Your task to perform on an android device: turn notification dots off Image 0: 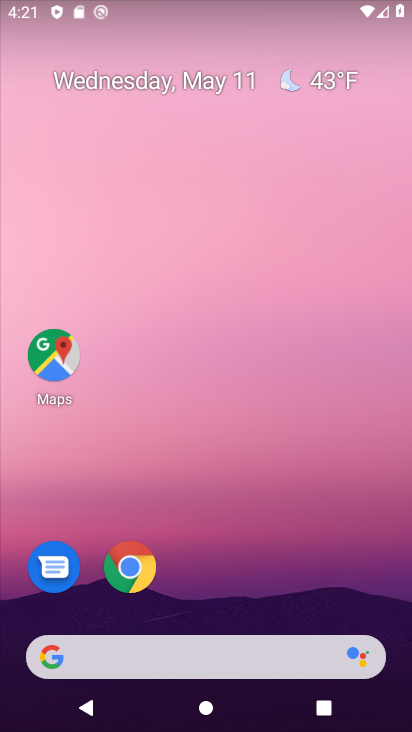
Step 0: press home button
Your task to perform on an android device: turn notification dots off Image 1: 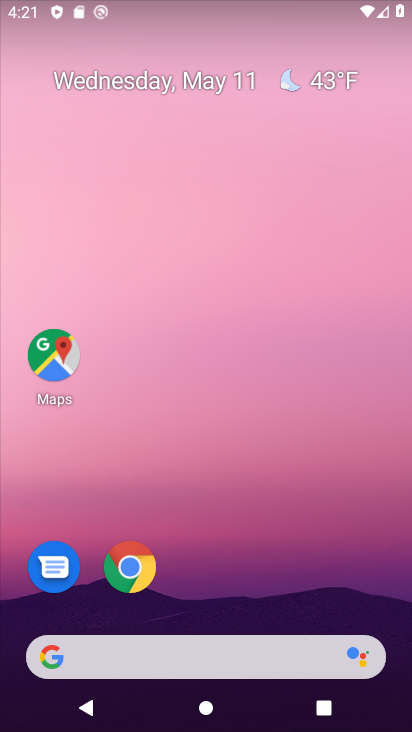
Step 1: drag from (233, 627) to (247, 0)
Your task to perform on an android device: turn notification dots off Image 2: 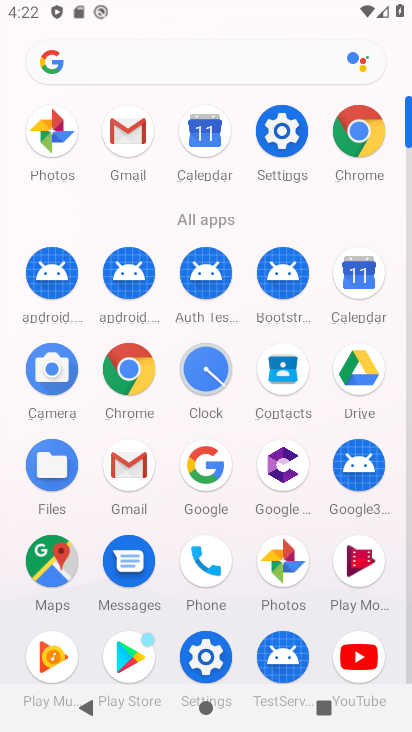
Step 2: click (280, 142)
Your task to perform on an android device: turn notification dots off Image 3: 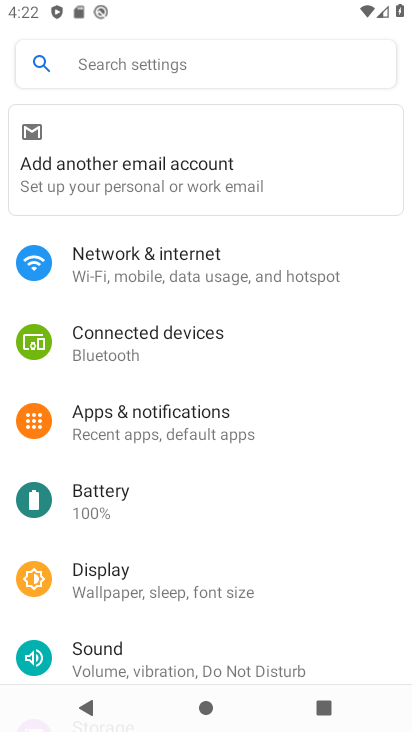
Step 3: click (175, 415)
Your task to perform on an android device: turn notification dots off Image 4: 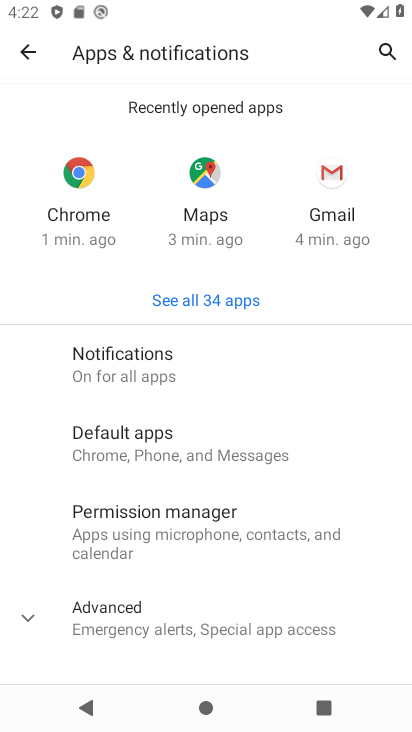
Step 4: click (216, 369)
Your task to perform on an android device: turn notification dots off Image 5: 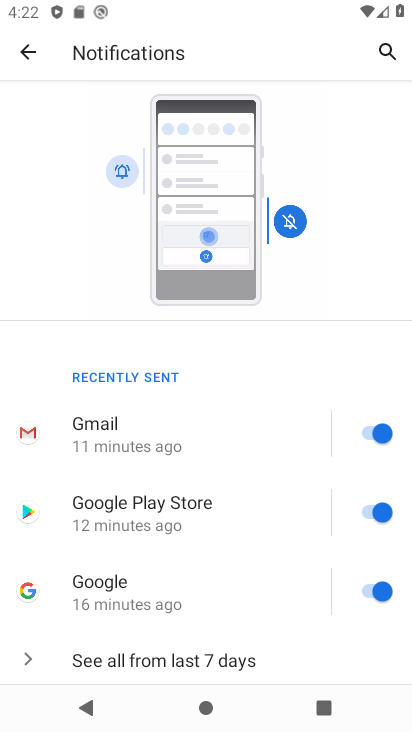
Step 5: drag from (257, 325) to (253, 42)
Your task to perform on an android device: turn notification dots off Image 6: 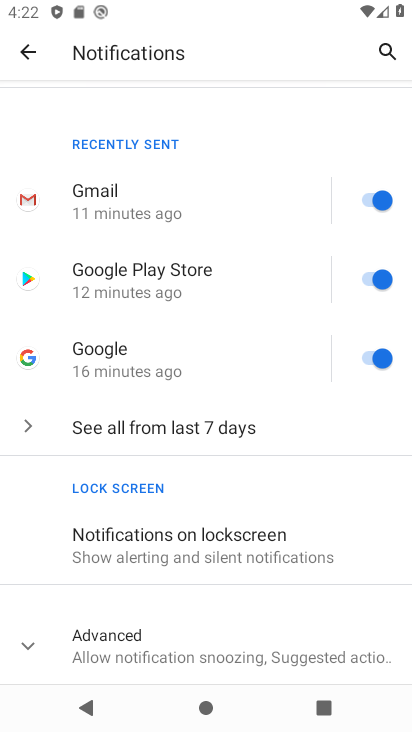
Step 6: click (237, 553)
Your task to perform on an android device: turn notification dots off Image 7: 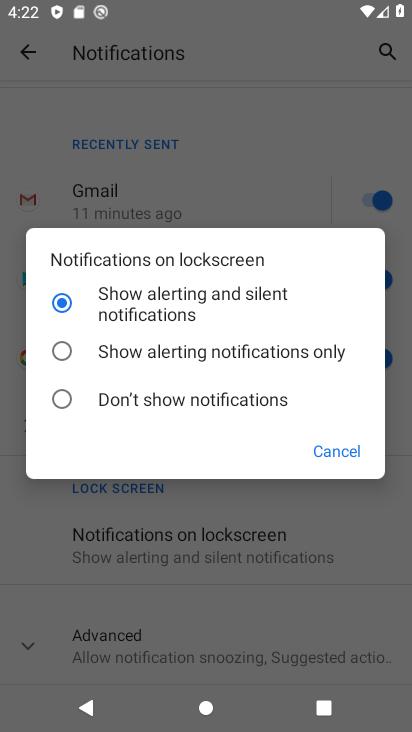
Step 7: click (316, 447)
Your task to perform on an android device: turn notification dots off Image 8: 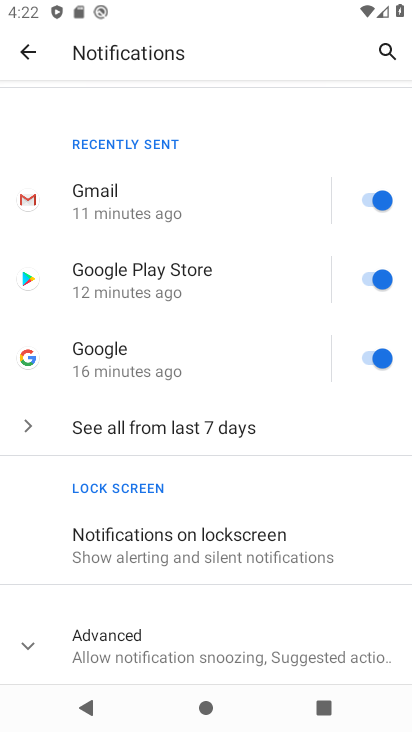
Step 8: click (199, 643)
Your task to perform on an android device: turn notification dots off Image 9: 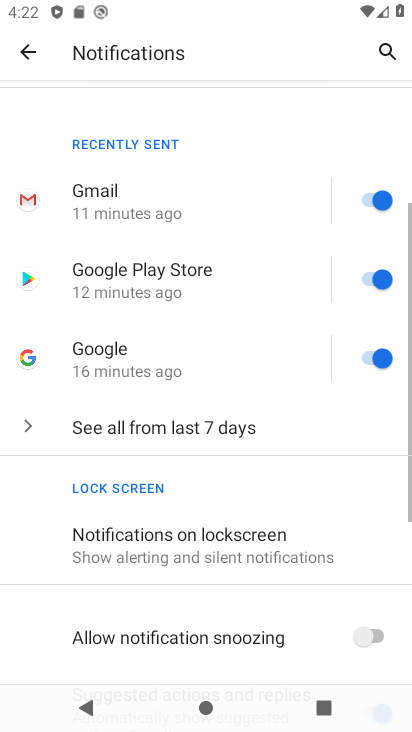
Step 9: drag from (238, 564) to (331, 39)
Your task to perform on an android device: turn notification dots off Image 10: 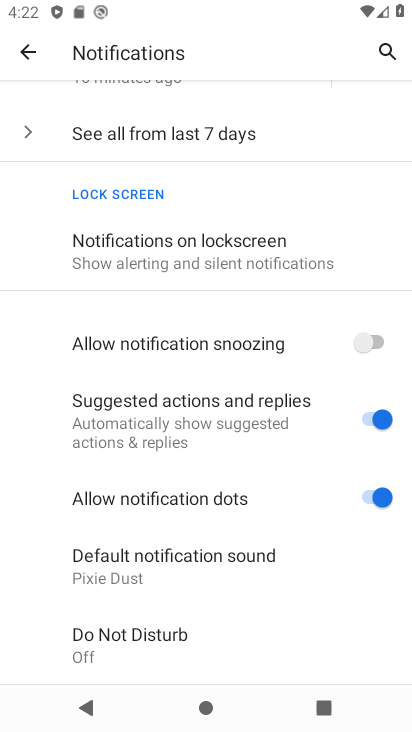
Step 10: click (376, 494)
Your task to perform on an android device: turn notification dots off Image 11: 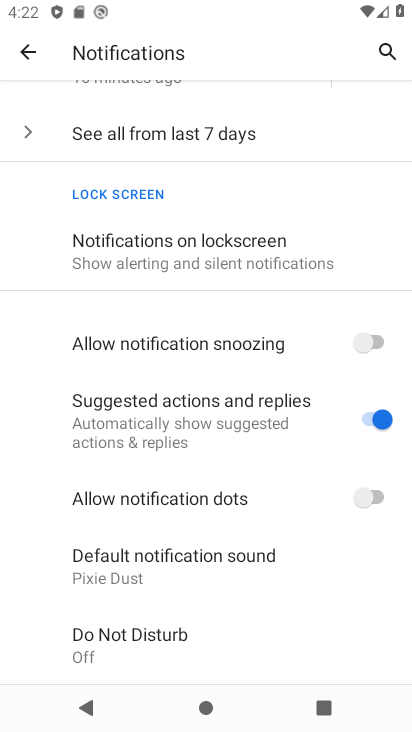
Step 11: task complete